Your task to perform on an android device: View the shopping cart on costco.com. Search for "bose soundlink mini" on costco.com, select the first entry, add it to the cart, then select checkout. Image 0: 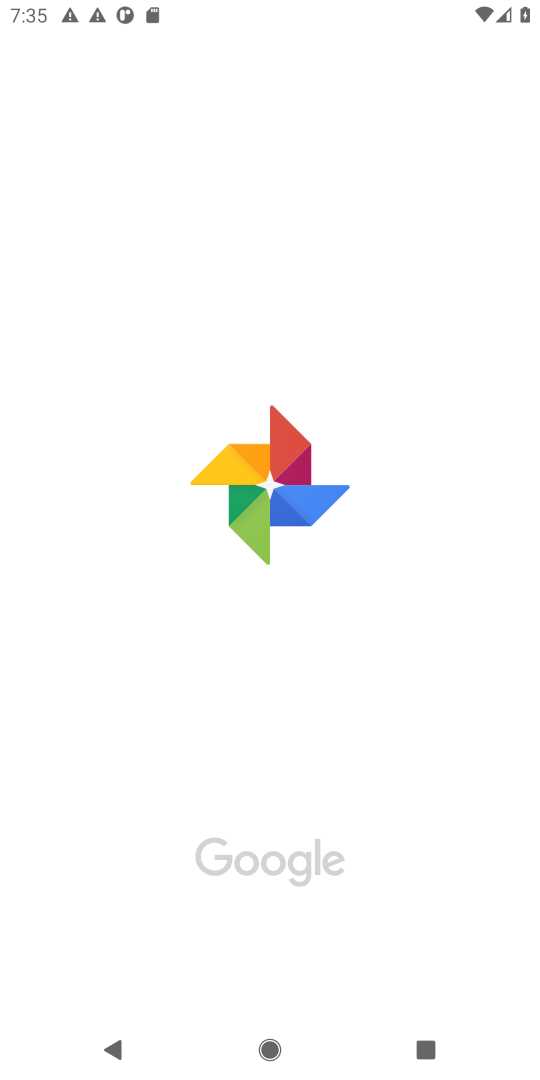
Step 0: press home button
Your task to perform on an android device: View the shopping cart on costco.com. Search for "bose soundlink mini" on costco.com, select the first entry, add it to the cart, then select checkout. Image 1: 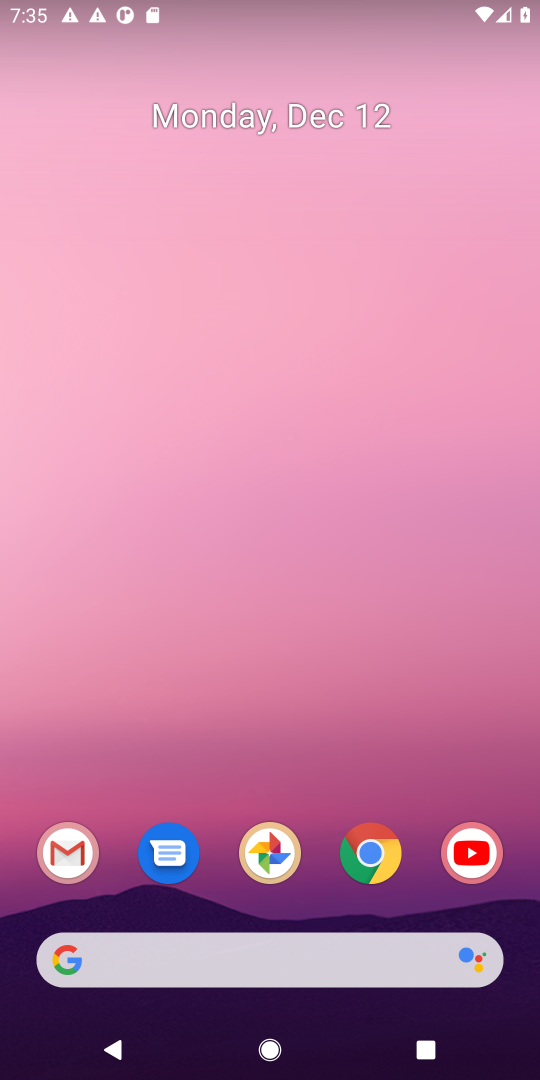
Step 1: click (370, 853)
Your task to perform on an android device: View the shopping cart on costco.com. Search for "bose soundlink mini" on costco.com, select the first entry, add it to the cart, then select checkout. Image 2: 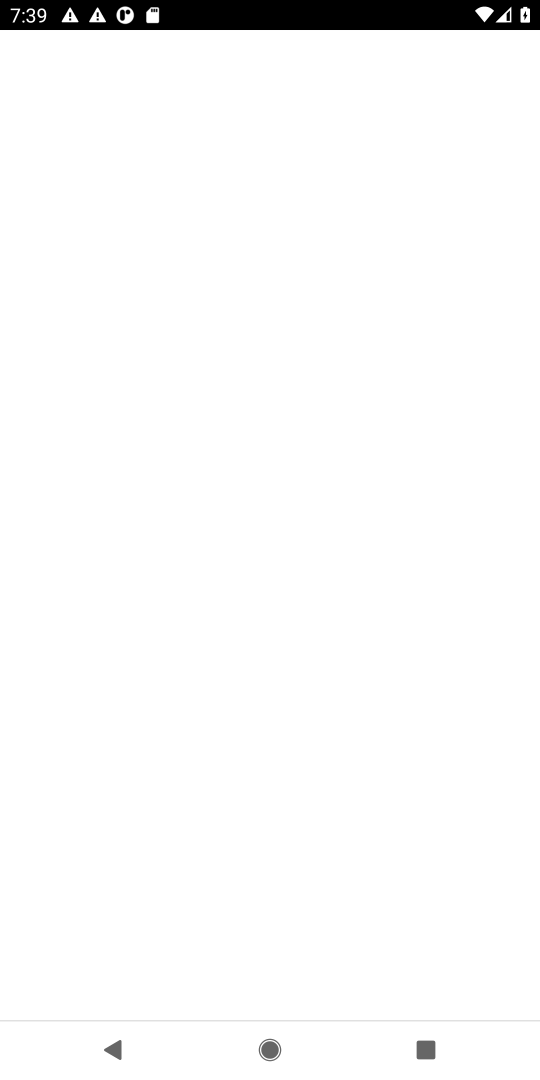
Step 2: task complete